Your task to perform on an android device: turn notification dots on Image 0: 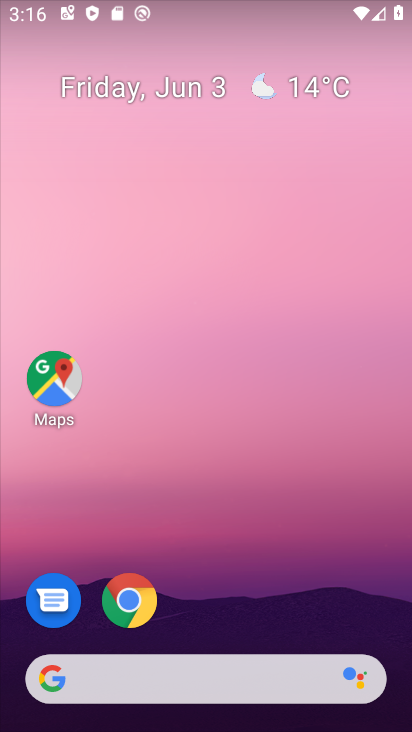
Step 0: drag from (264, 597) to (281, 228)
Your task to perform on an android device: turn notification dots on Image 1: 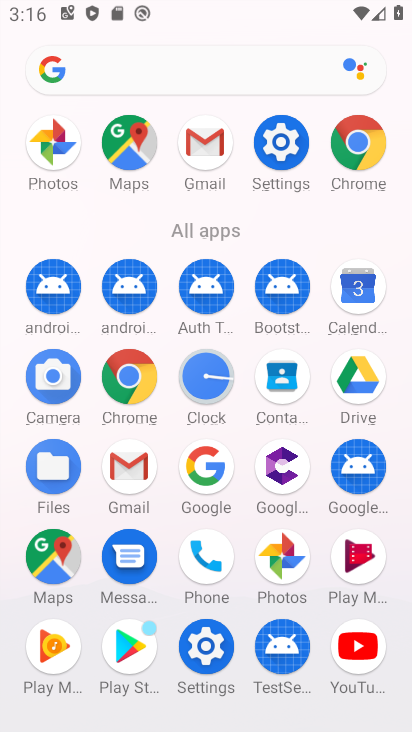
Step 1: click (193, 655)
Your task to perform on an android device: turn notification dots on Image 2: 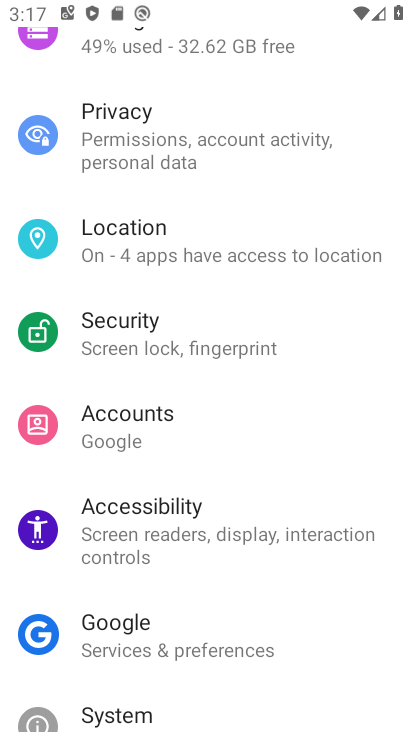
Step 2: drag from (172, 179) to (136, 511)
Your task to perform on an android device: turn notification dots on Image 3: 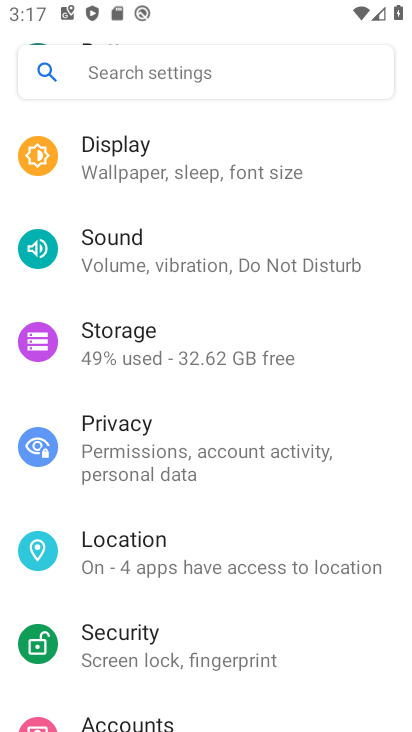
Step 3: drag from (170, 274) to (159, 570)
Your task to perform on an android device: turn notification dots on Image 4: 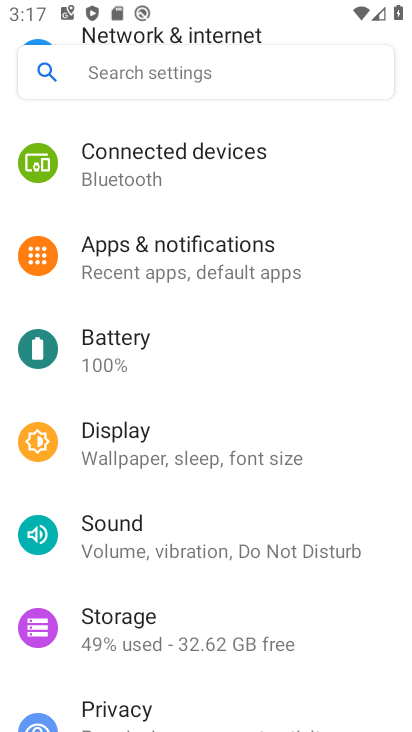
Step 4: click (165, 272)
Your task to perform on an android device: turn notification dots on Image 5: 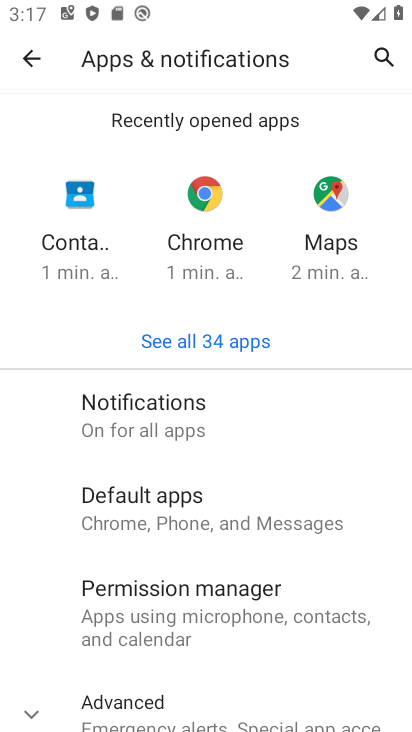
Step 5: click (160, 429)
Your task to perform on an android device: turn notification dots on Image 6: 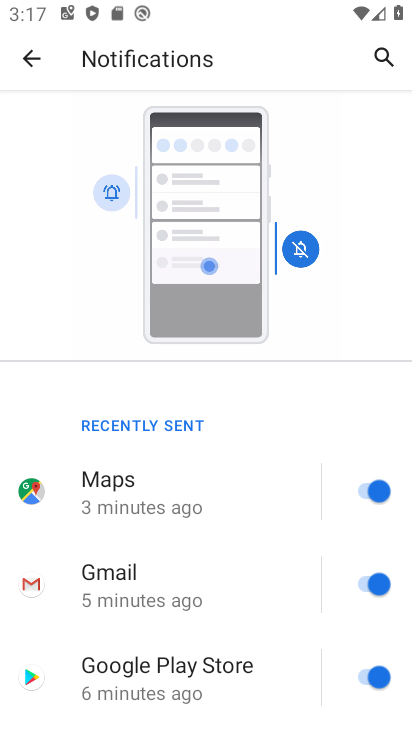
Step 6: drag from (241, 568) to (230, 200)
Your task to perform on an android device: turn notification dots on Image 7: 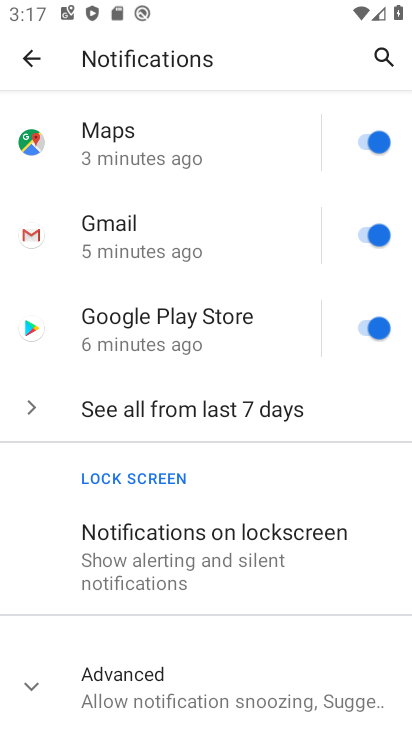
Step 7: click (182, 666)
Your task to perform on an android device: turn notification dots on Image 8: 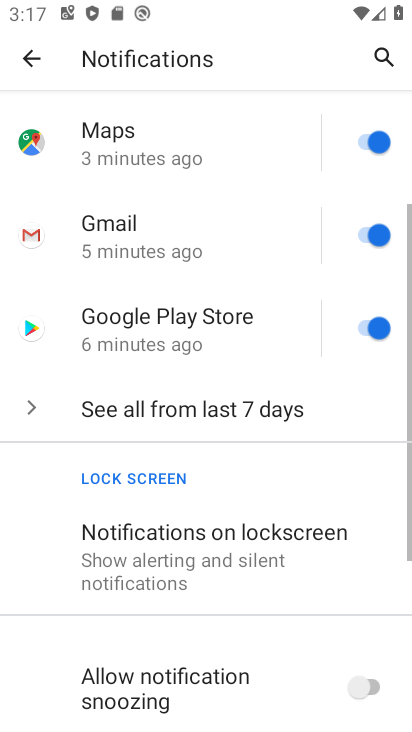
Step 8: task complete